Your task to perform on an android device: add a contact in the contacts app Image 0: 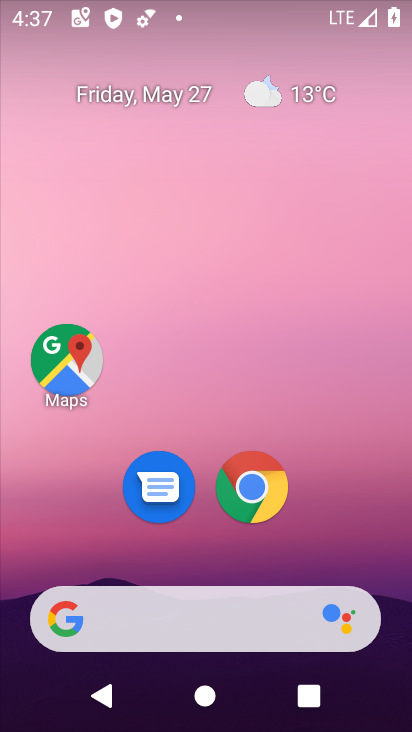
Step 0: drag from (344, 542) to (260, 125)
Your task to perform on an android device: add a contact in the contacts app Image 1: 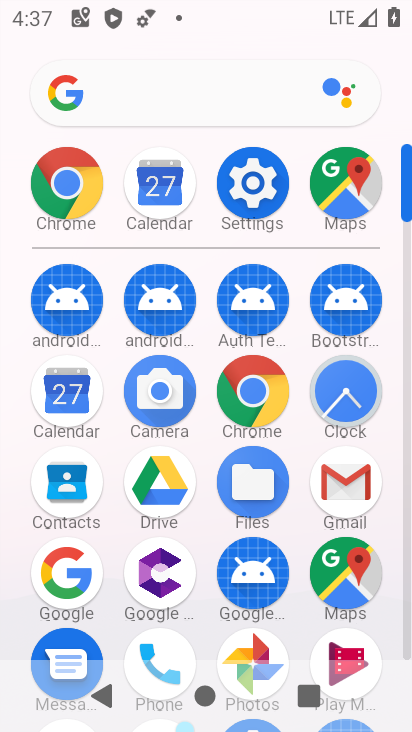
Step 1: click (68, 474)
Your task to perform on an android device: add a contact in the contacts app Image 2: 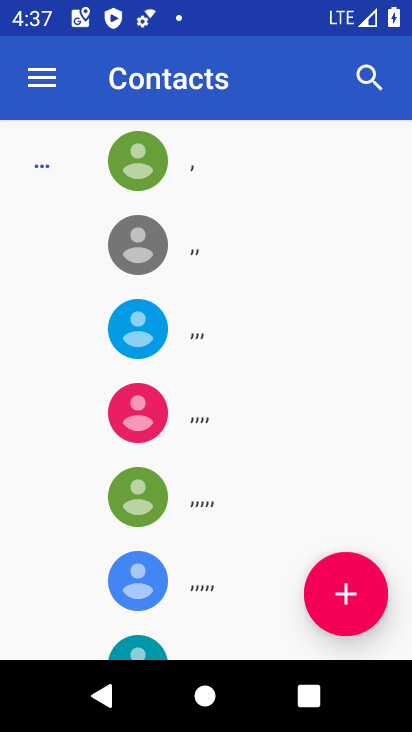
Step 2: click (351, 603)
Your task to perform on an android device: add a contact in the contacts app Image 3: 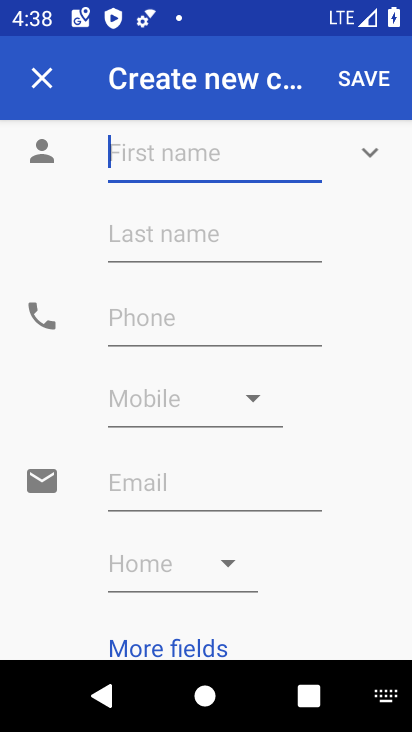
Step 3: type "hghtgg"
Your task to perform on an android device: add a contact in the contacts app Image 4: 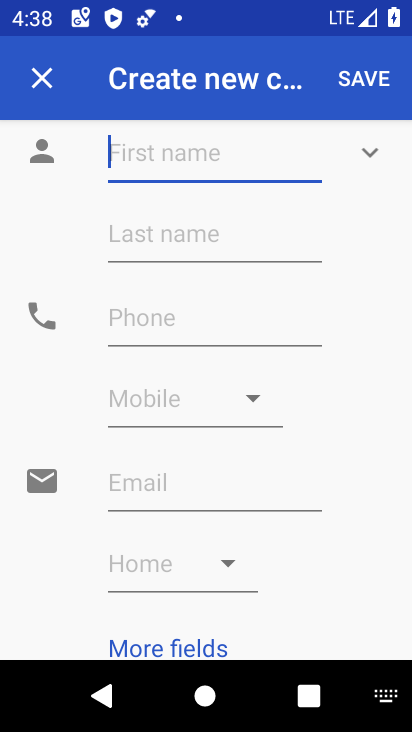
Step 4: click (366, 83)
Your task to perform on an android device: add a contact in the contacts app Image 5: 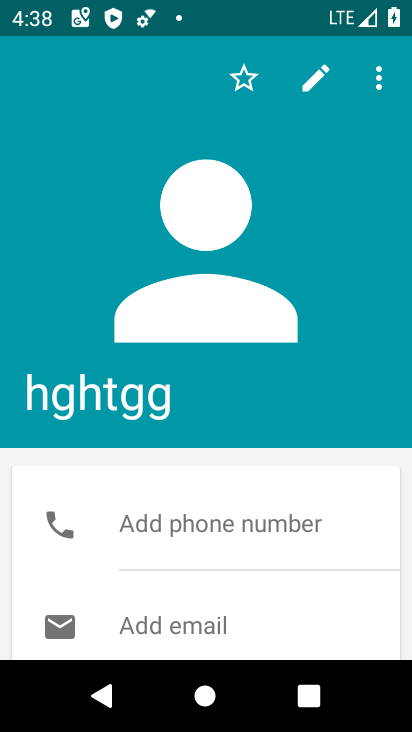
Step 5: task complete